Your task to perform on an android device: turn off improve location accuracy Image 0: 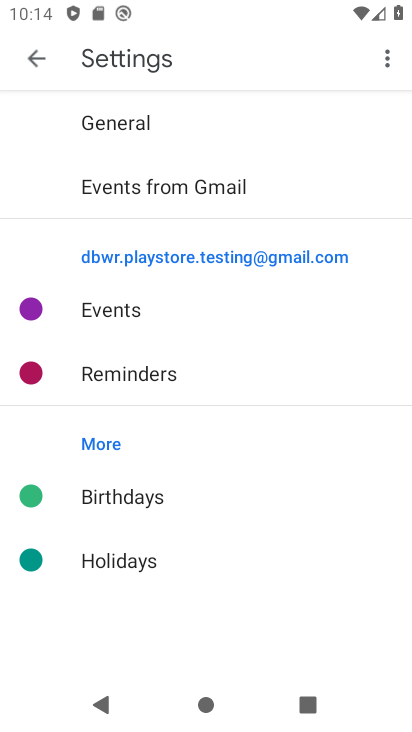
Step 0: press home button
Your task to perform on an android device: turn off improve location accuracy Image 1: 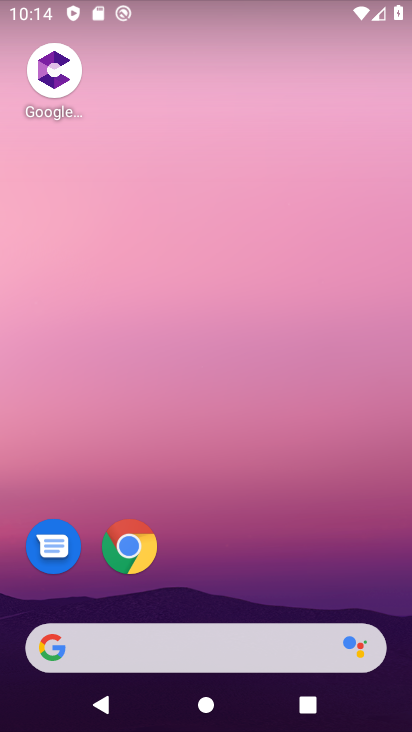
Step 1: drag from (208, 577) to (236, 192)
Your task to perform on an android device: turn off improve location accuracy Image 2: 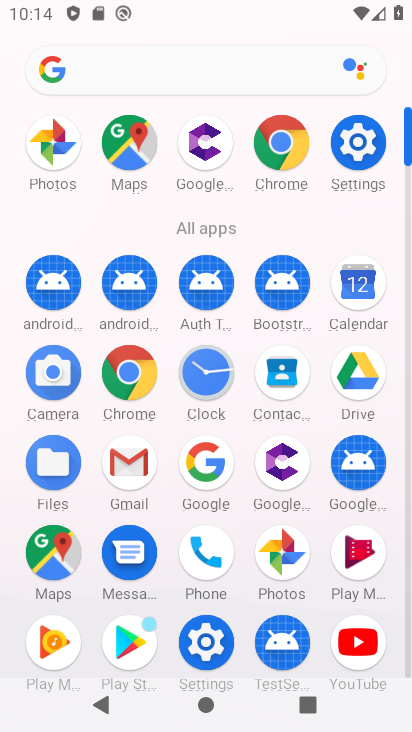
Step 2: click (359, 146)
Your task to perform on an android device: turn off improve location accuracy Image 3: 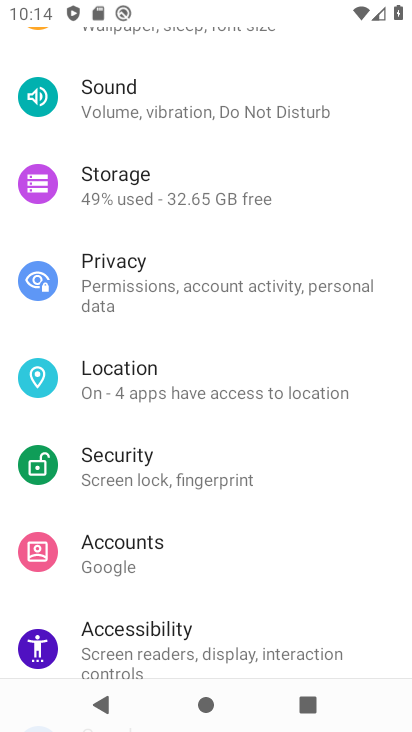
Step 3: click (162, 377)
Your task to perform on an android device: turn off improve location accuracy Image 4: 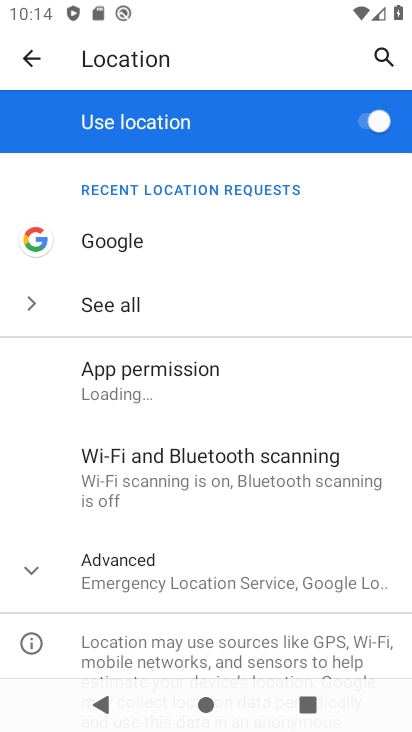
Step 4: drag from (230, 466) to (240, 164)
Your task to perform on an android device: turn off improve location accuracy Image 5: 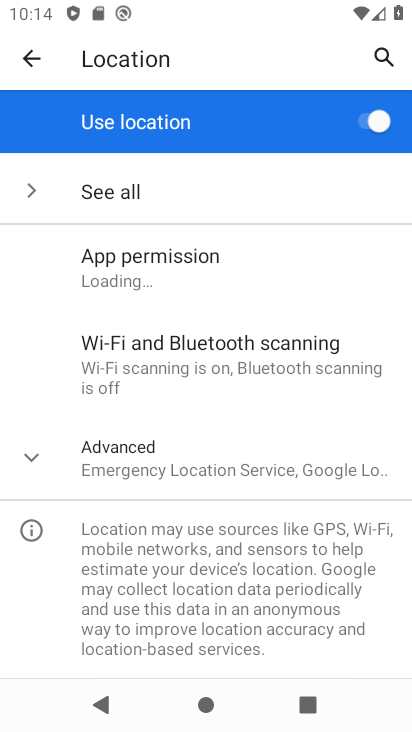
Step 5: click (34, 455)
Your task to perform on an android device: turn off improve location accuracy Image 6: 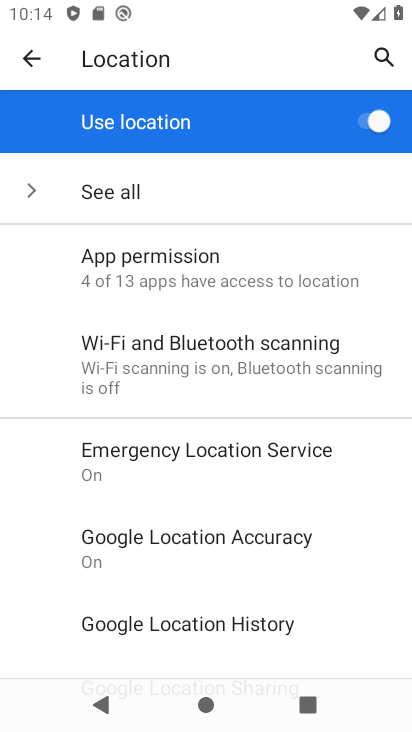
Step 6: click (238, 541)
Your task to perform on an android device: turn off improve location accuracy Image 7: 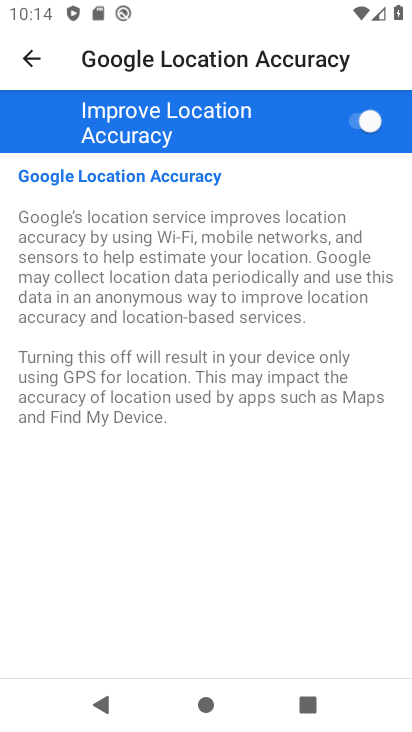
Step 7: click (356, 125)
Your task to perform on an android device: turn off improve location accuracy Image 8: 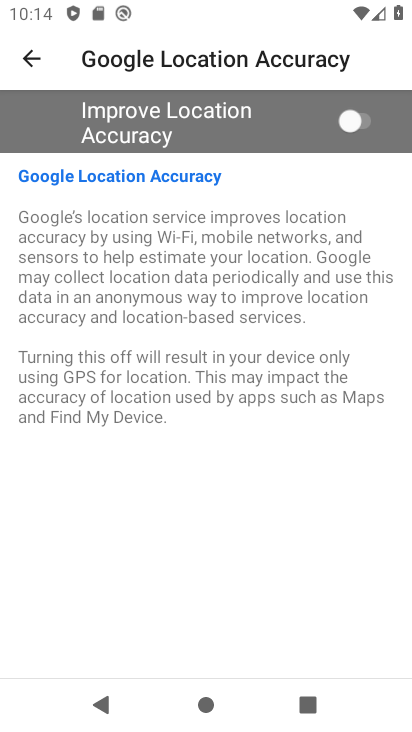
Step 8: task complete